Your task to perform on an android device: open wifi settings Image 0: 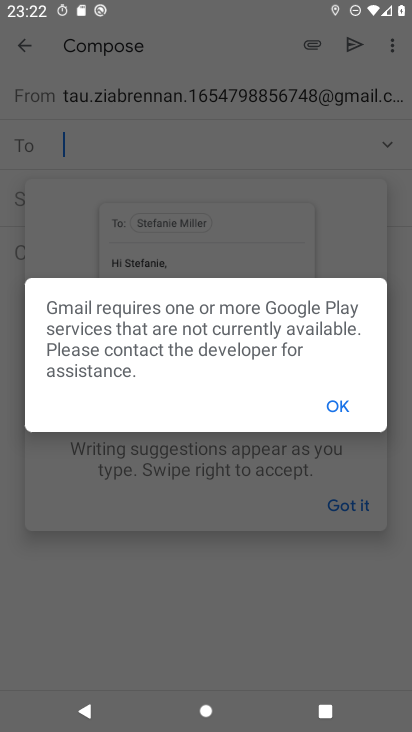
Step 0: press home button
Your task to perform on an android device: open wifi settings Image 1: 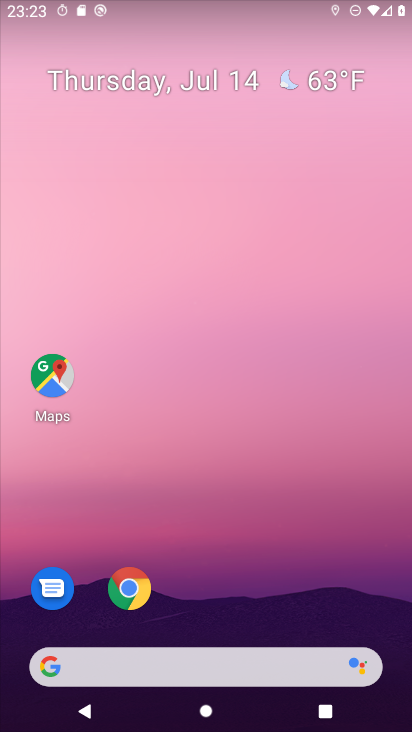
Step 1: drag from (358, 597) to (377, 65)
Your task to perform on an android device: open wifi settings Image 2: 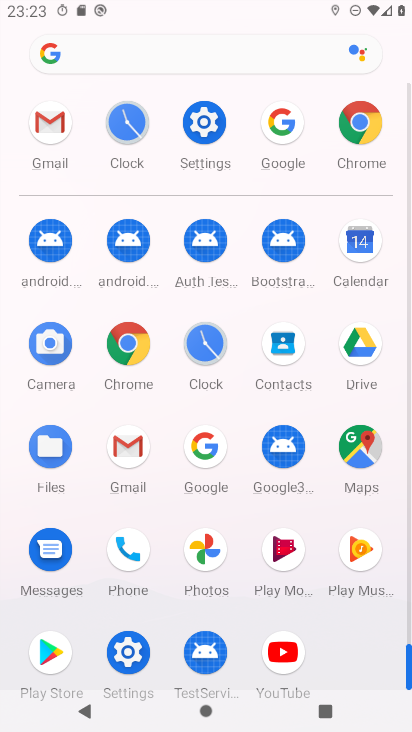
Step 2: click (205, 130)
Your task to perform on an android device: open wifi settings Image 3: 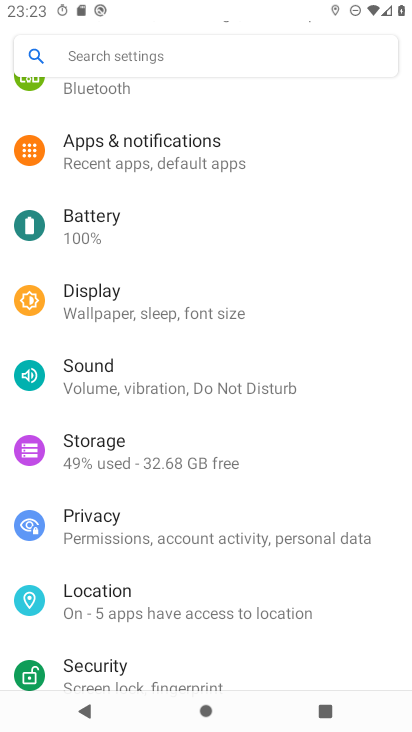
Step 3: drag from (327, 616) to (341, 457)
Your task to perform on an android device: open wifi settings Image 4: 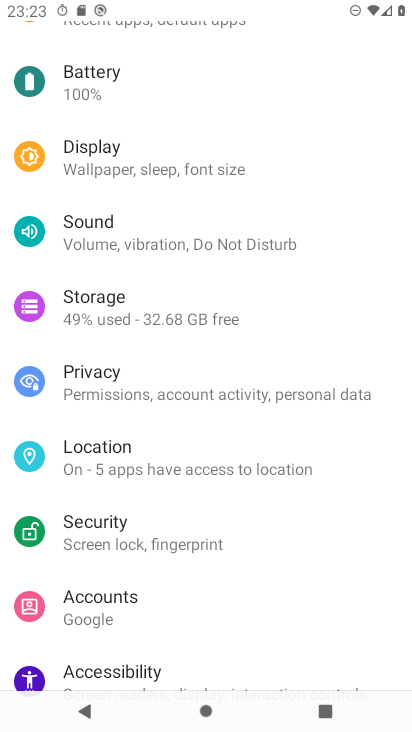
Step 4: drag from (348, 592) to (364, 467)
Your task to perform on an android device: open wifi settings Image 5: 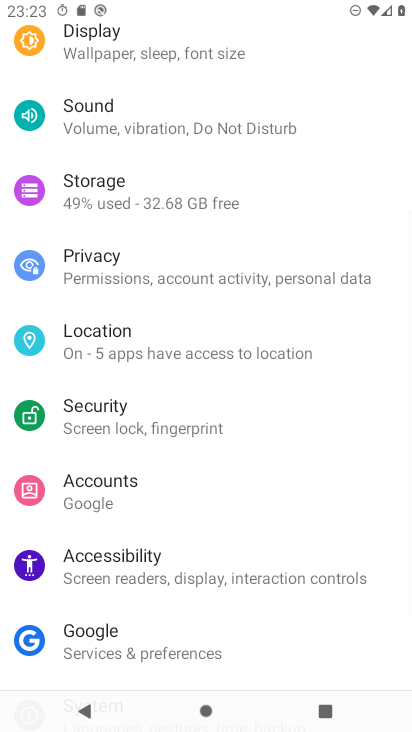
Step 5: drag from (358, 628) to (357, 407)
Your task to perform on an android device: open wifi settings Image 6: 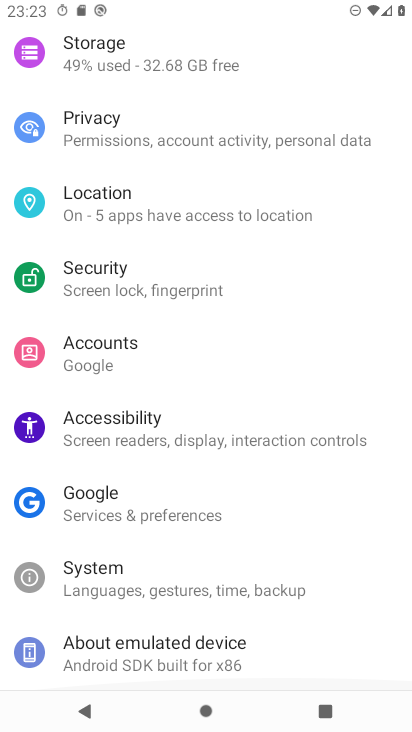
Step 6: drag from (357, 356) to (357, 478)
Your task to perform on an android device: open wifi settings Image 7: 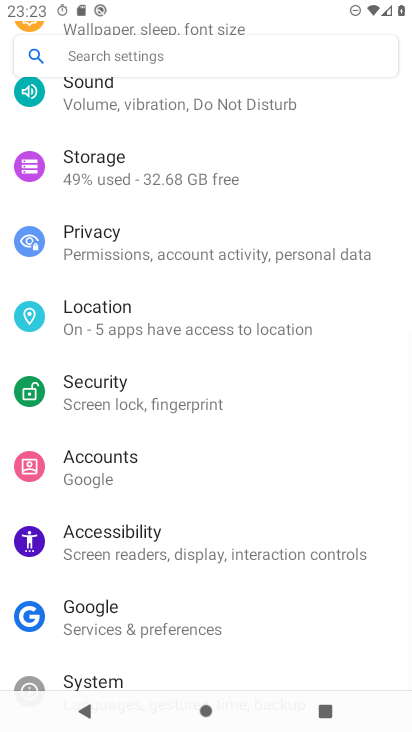
Step 7: drag from (356, 370) to (353, 467)
Your task to perform on an android device: open wifi settings Image 8: 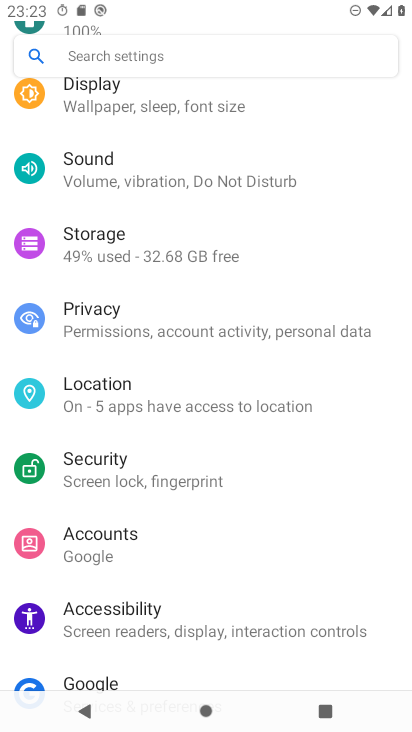
Step 8: drag from (365, 377) to (364, 457)
Your task to perform on an android device: open wifi settings Image 9: 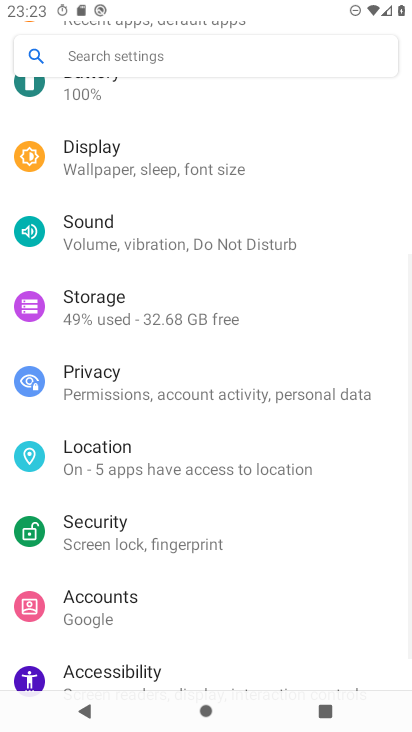
Step 9: drag from (362, 342) to (356, 431)
Your task to perform on an android device: open wifi settings Image 10: 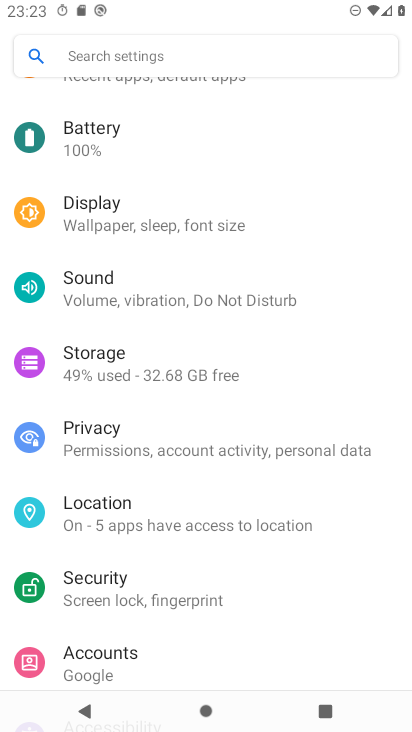
Step 10: drag from (356, 316) to (351, 398)
Your task to perform on an android device: open wifi settings Image 11: 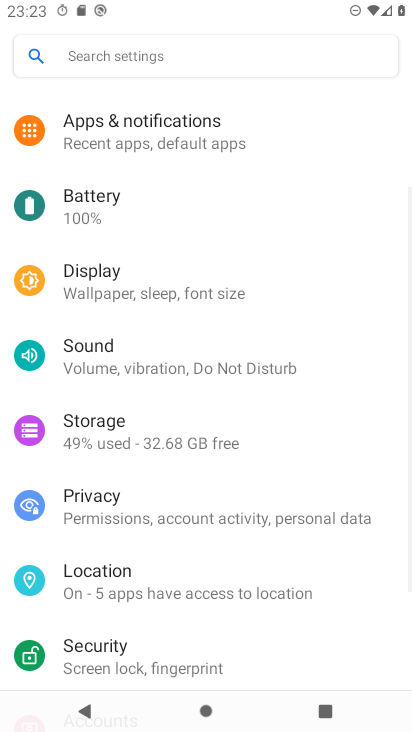
Step 11: drag from (351, 312) to (352, 391)
Your task to perform on an android device: open wifi settings Image 12: 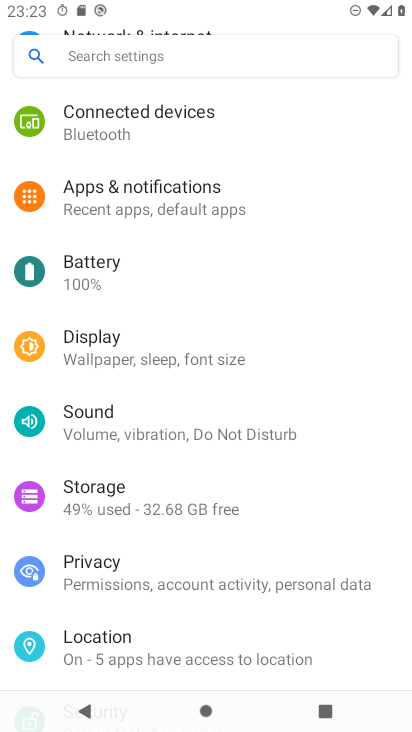
Step 12: drag from (349, 296) to (351, 426)
Your task to perform on an android device: open wifi settings Image 13: 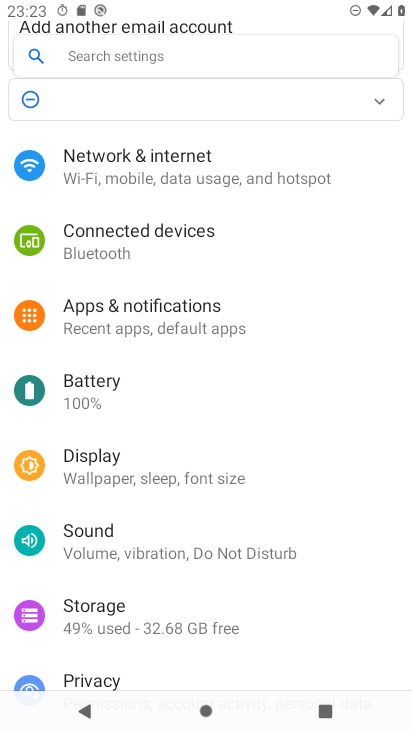
Step 13: drag from (350, 298) to (349, 478)
Your task to perform on an android device: open wifi settings Image 14: 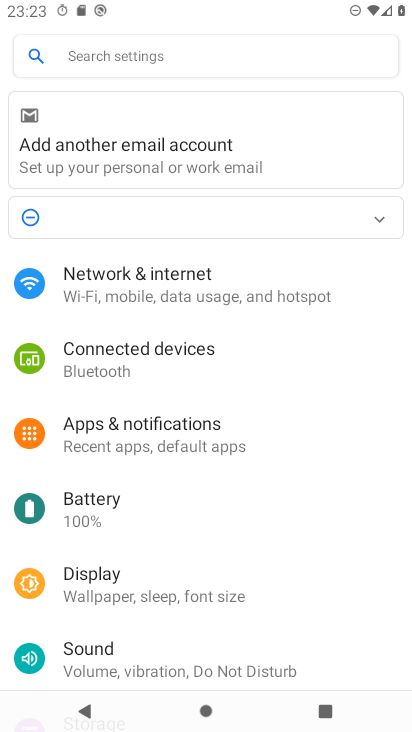
Step 14: click (289, 292)
Your task to perform on an android device: open wifi settings Image 15: 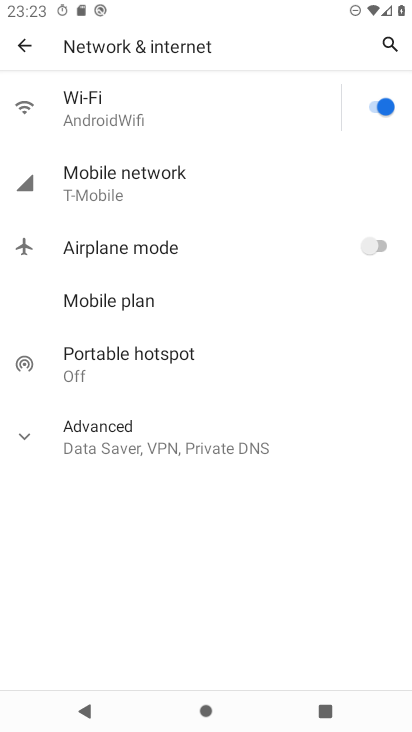
Step 15: click (119, 116)
Your task to perform on an android device: open wifi settings Image 16: 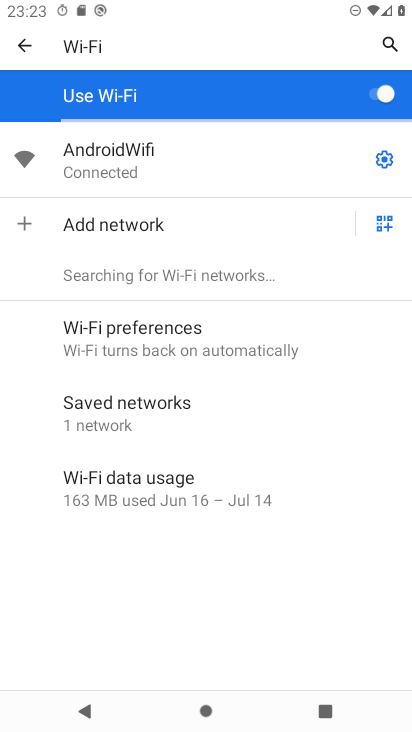
Step 16: task complete